Your task to perform on an android device: open app "Contacts" Image 0: 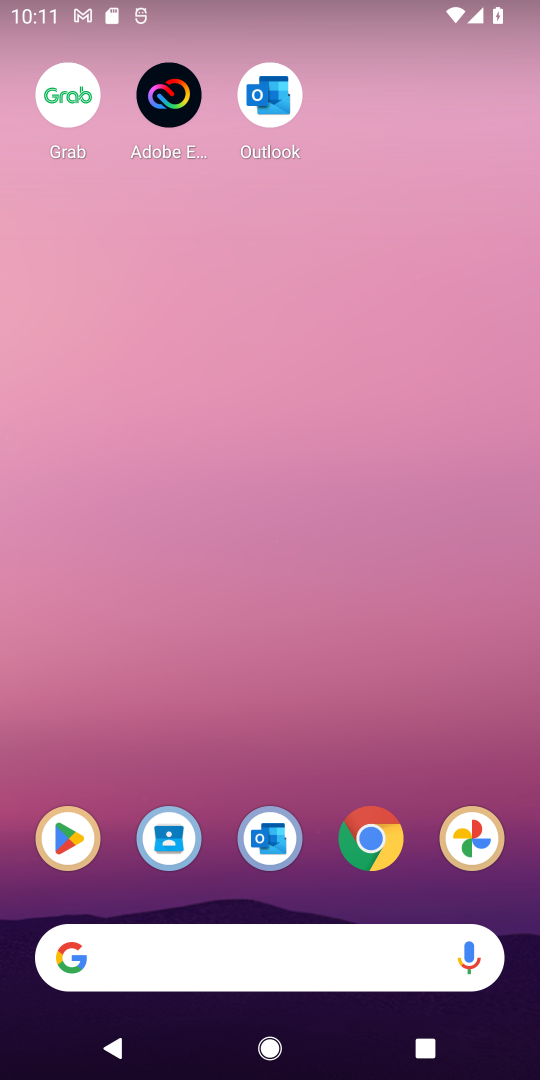
Step 0: click (57, 832)
Your task to perform on an android device: open app "Contacts" Image 1: 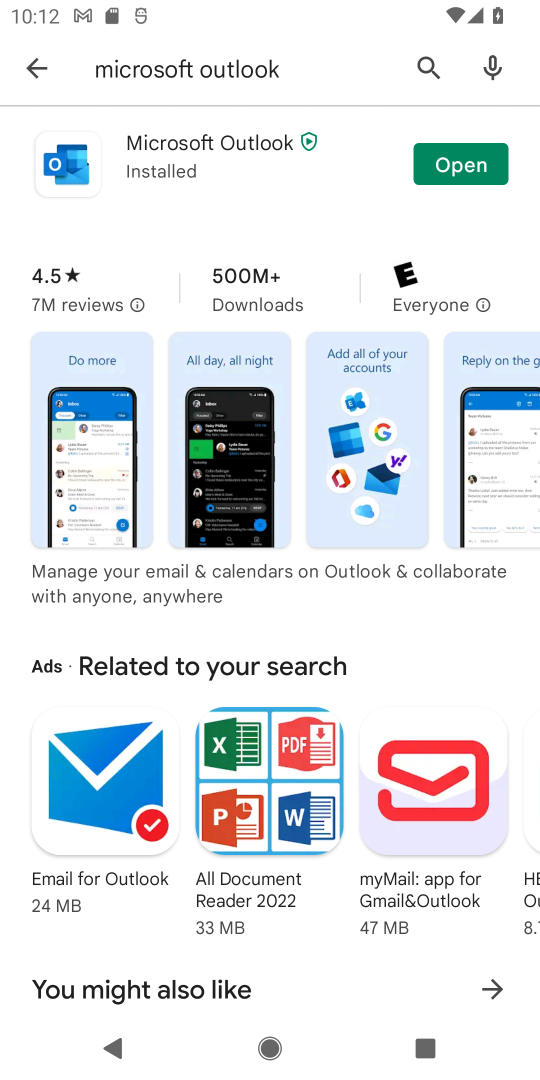
Step 1: click (322, 92)
Your task to perform on an android device: open app "Contacts" Image 2: 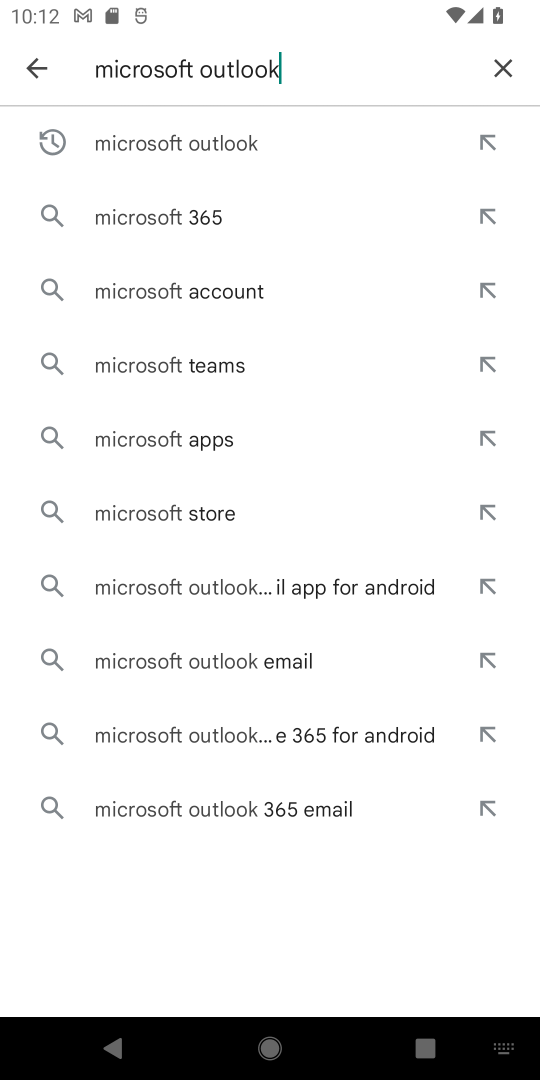
Step 2: click (499, 65)
Your task to perform on an android device: open app "Contacts" Image 3: 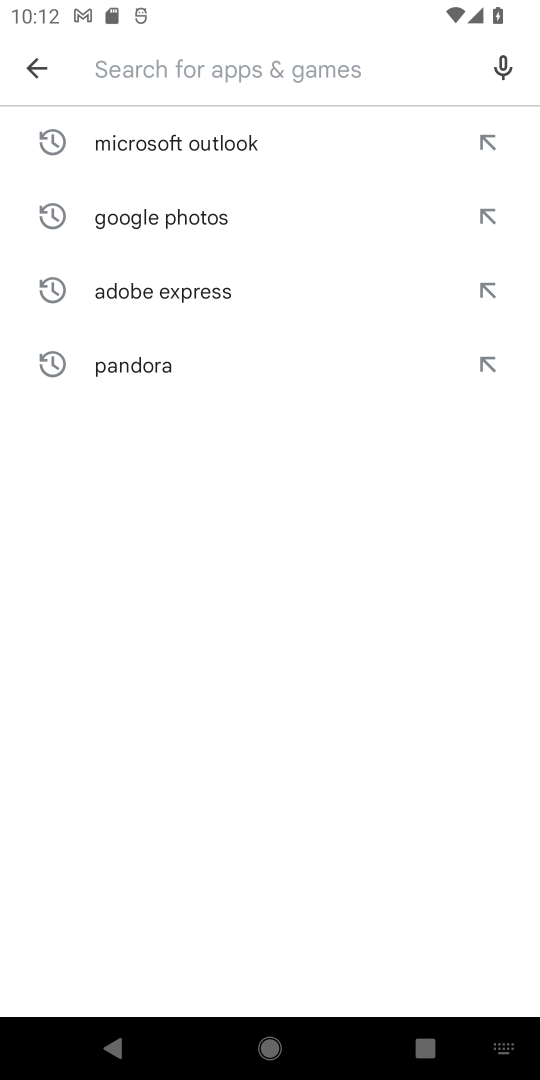
Step 3: type "contacts"
Your task to perform on an android device: open app "Contacts" Image 4: 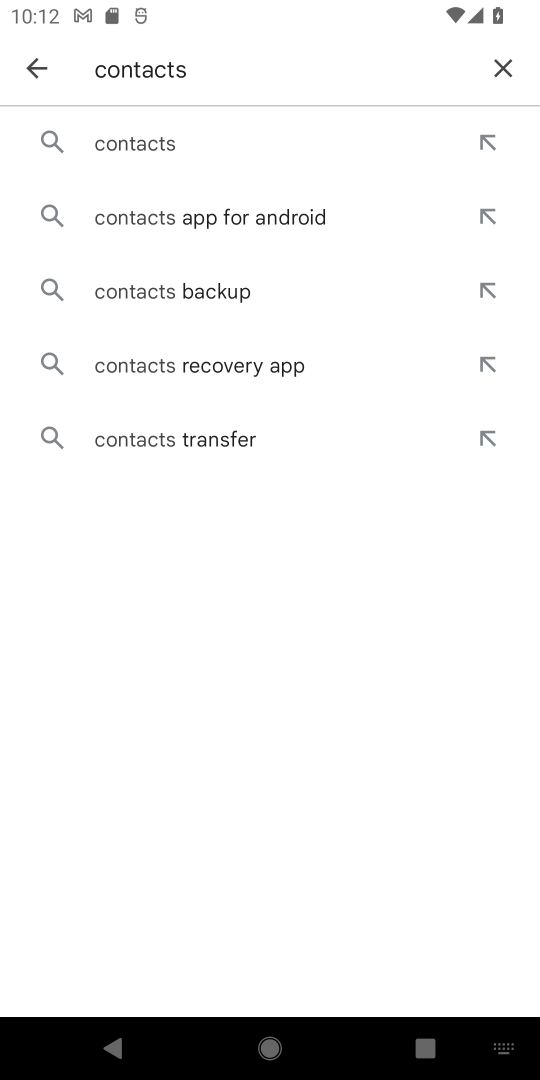
Step 4: click (151, 145)
Your task to perform on an android device: open app "Contacts" Image 5: 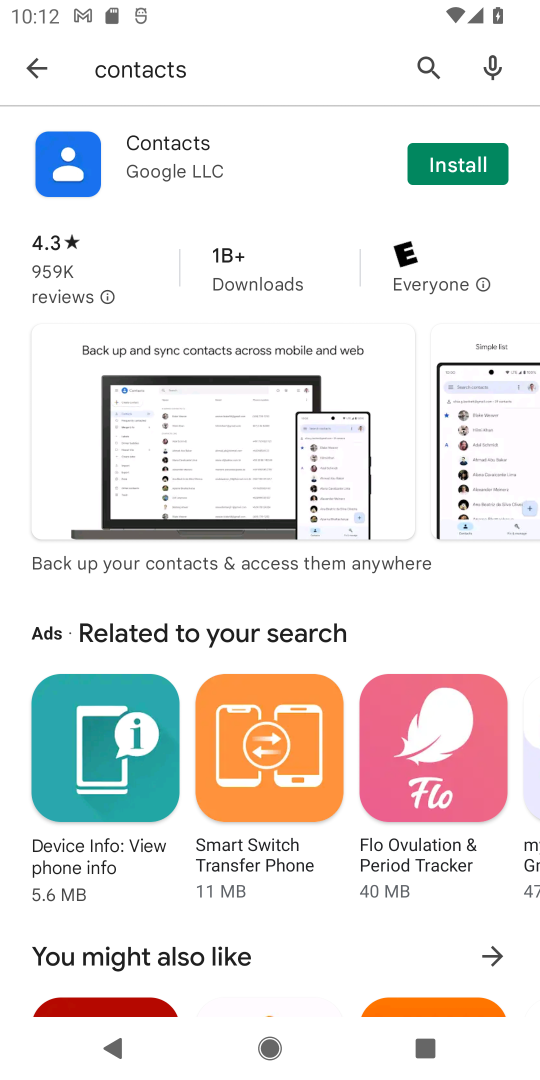
Step 5: task complete